Your task to perform on an android device: Go to eBay Image 0: 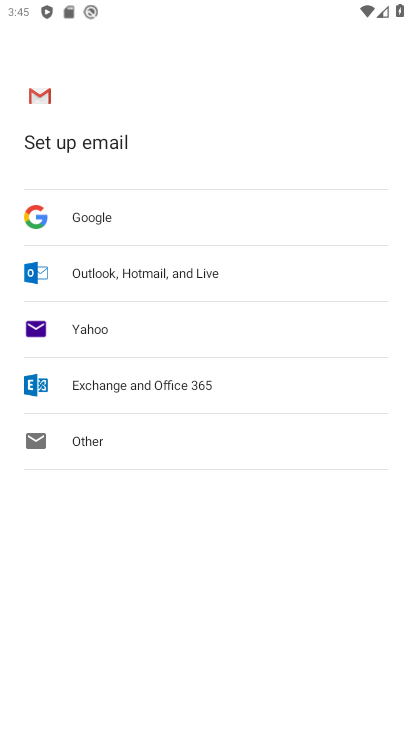
Step 0: press home button
Your task to perform on an android device: Go to eBay Image 1: 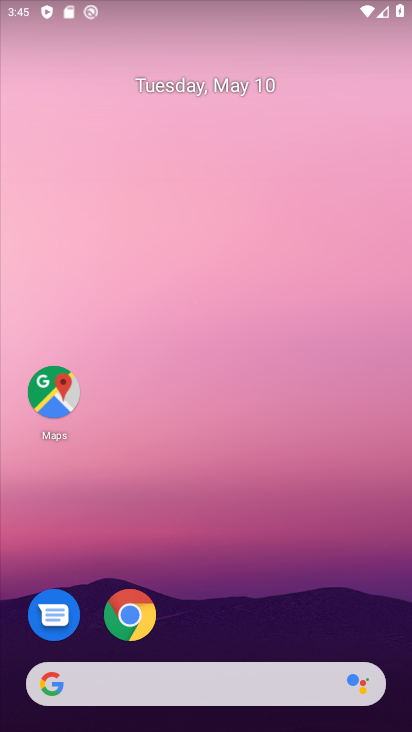
Step 1: click (146, 621)
Your task to perform on an android device: Go to eBay Image 2: 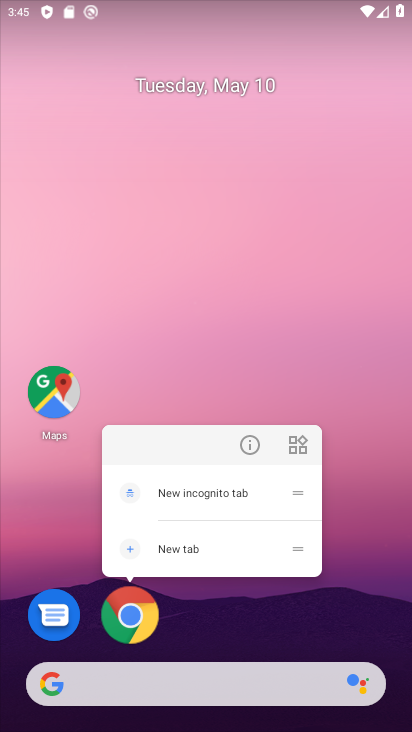
Step 2: click (129, 620)
Your task to perform on an android device: Go to eBay Image 3: 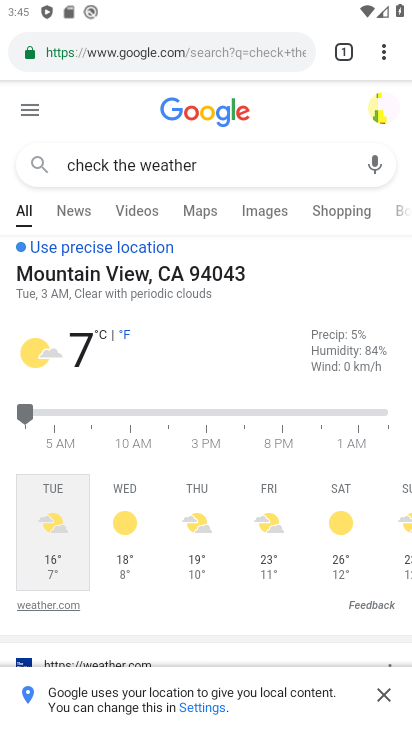
Step 3: click (122, 53)
Your task to perform on an android device: Go to eBay Image 4: 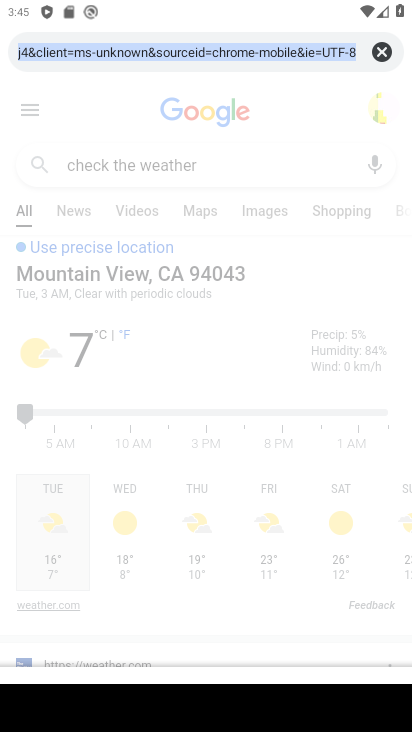
Step 4: type "ebay"
Your task to perform on an android device: Go to eBay Image 5: 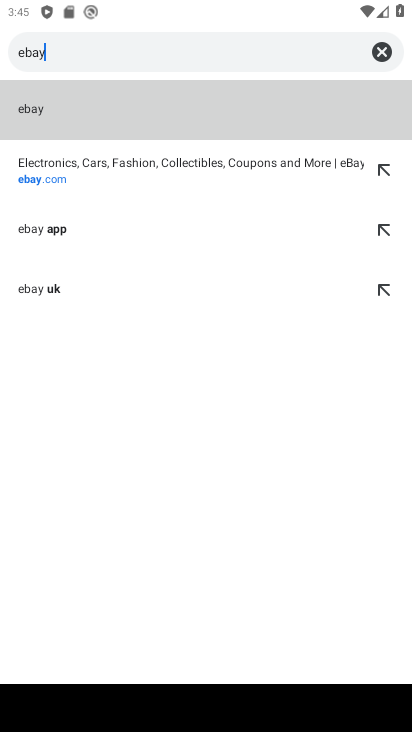
Step 5: click (28, 117)
Your task to perform on an android device: Go to eBay Image 6: 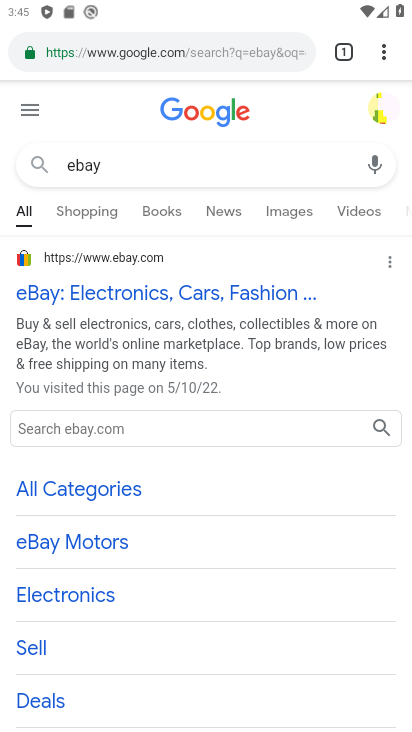
Step 6: click (139, 290)
Your task to perform on an android device: Go to eBay Image 7: 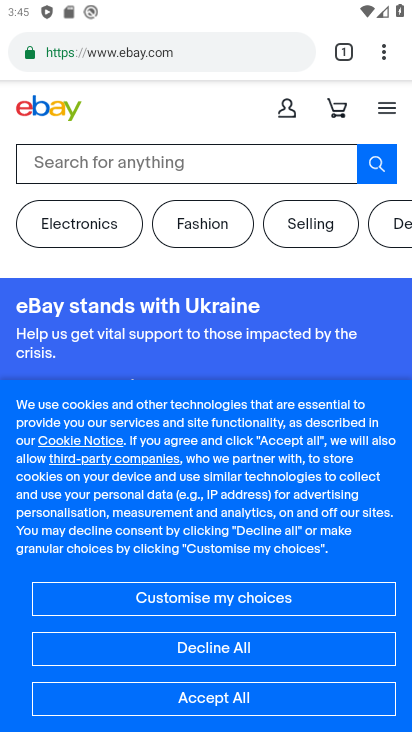
Step 7: task complete